Your task to perform on an android device: Is it going to rain today? Image 0: 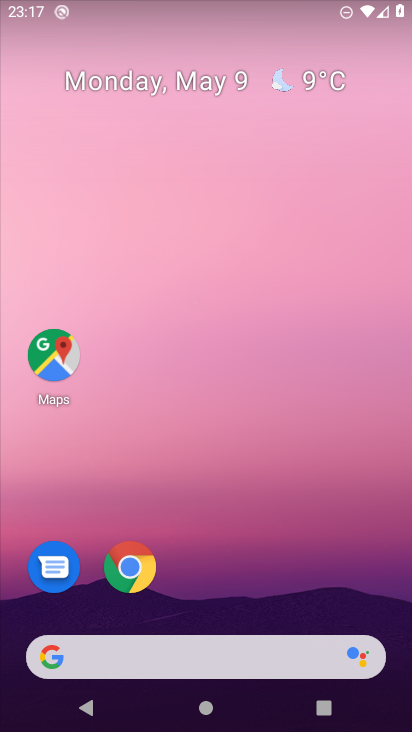
Step 0: click (316, 78)
Your task to perform on an android device: Is it going to rain today? Image 1: 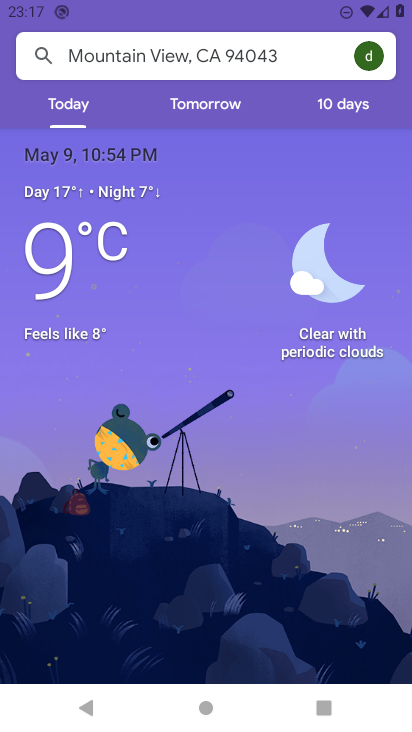
Step 1: task complete